Your task to perform on an android device: Go to Google Image 0: 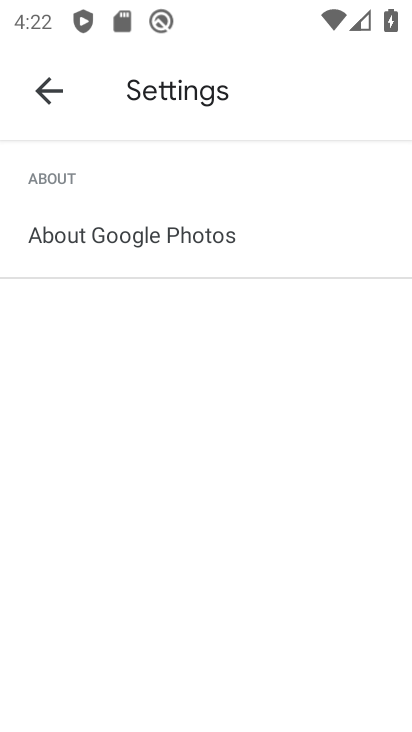
Step 0: press home button
Your task to perform on an android device: Go to Google Image 1: 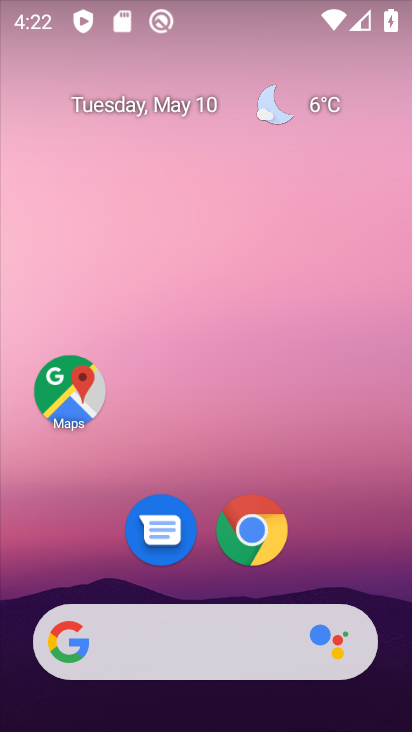
Step 1: drag from (322, 502) to (311, 62)
Your task to perform on an android device: Go to Google Image 2: 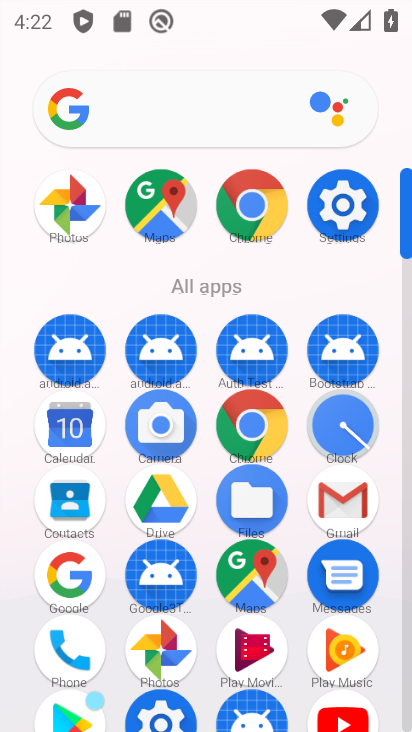
Step 2: drag from (224, 538) to (229, 237)
Your task to perform on an android device: Go to Google Image 3: 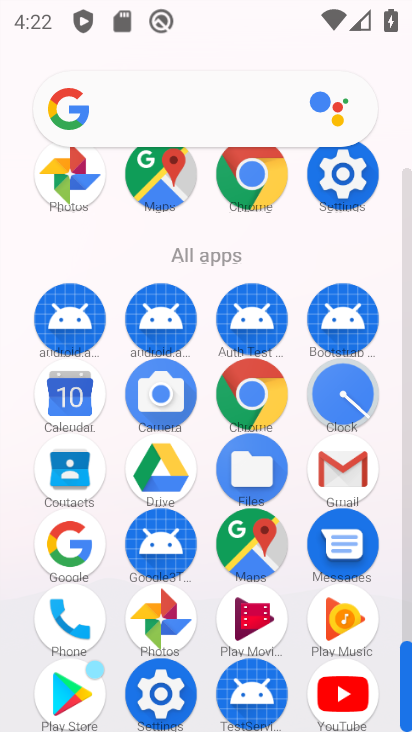
Step 3: click (77, 556)
Your task to perform on an android device: Go to Google Image 4: 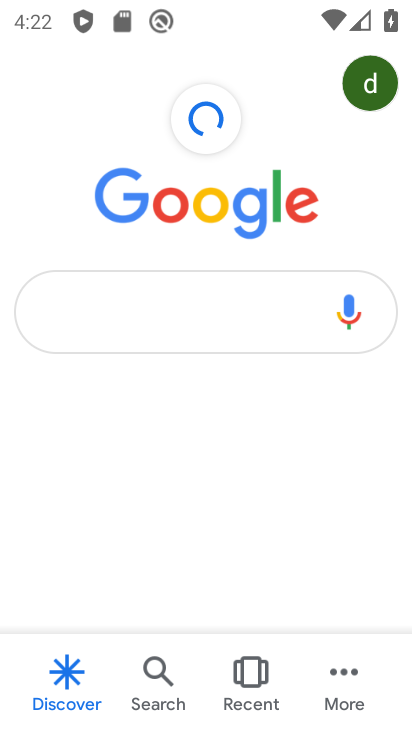
Step 4: task complete